Your task to perform on an android device: snooze an email in the gmail app Image 0: 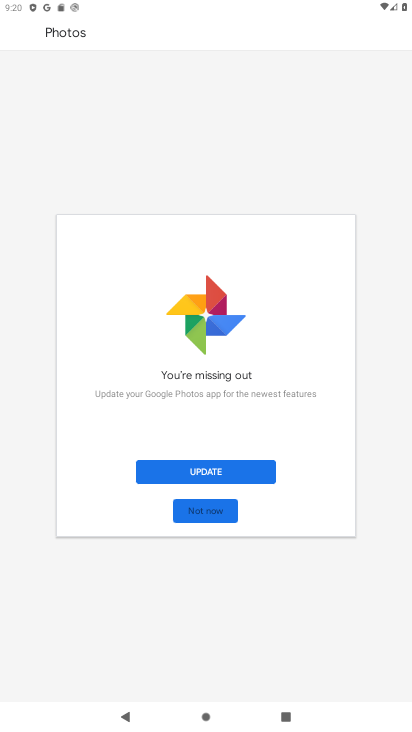
Step 0: press home button
Your task to perform on an android device: snooze an email in the gmail app Image 1: 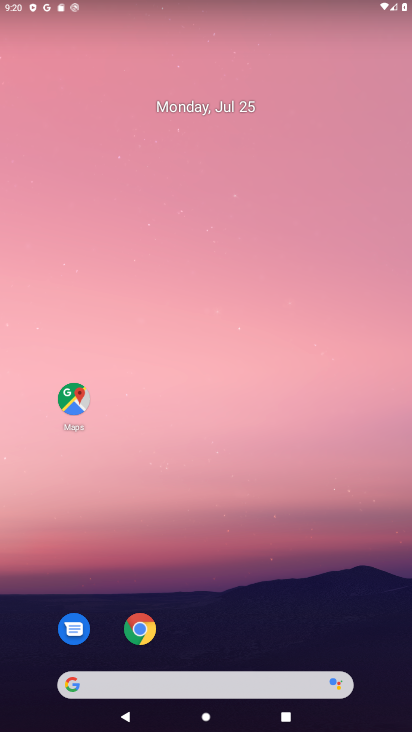
Step 1: drag from (234, 535) to (192, 16)
Your task to perform on an android device: snooze an email in the gmail app Image 2: 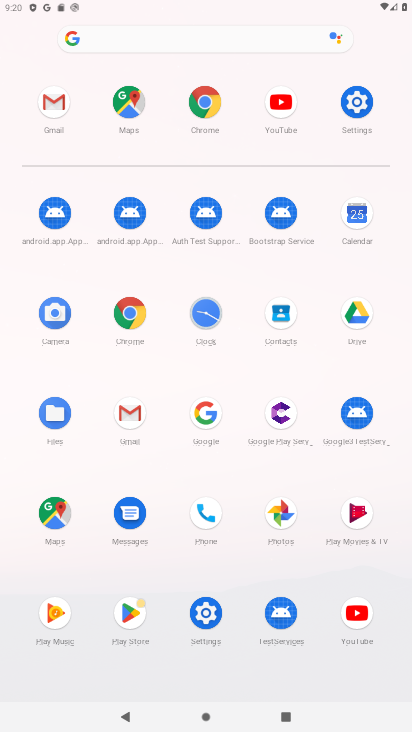
Step 2: click (51, 99)
Your task to perform on an android device: snooze an email in the gmail app Image 3: 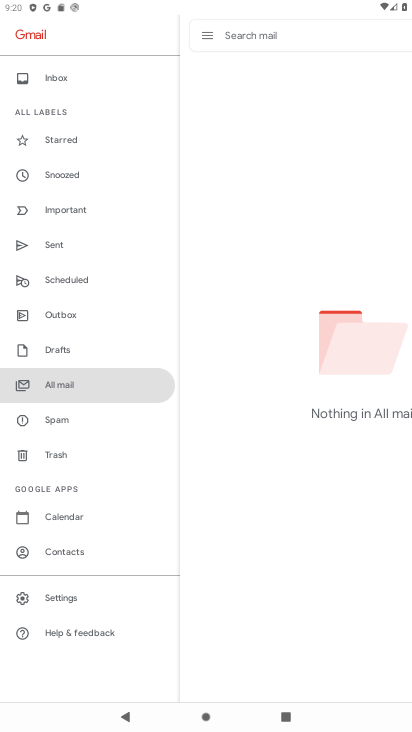
Step 3: task complete